Your task to perform on an android device: Open Android settings Image 0: 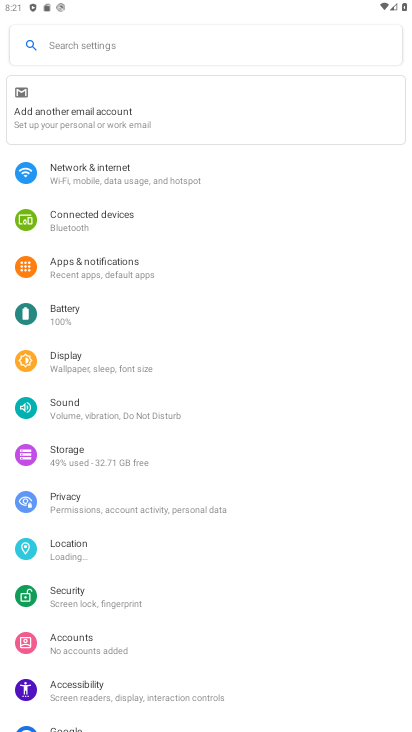
Step 0: press home button
Your task to perform on an android device: Open Android settings Image 1: 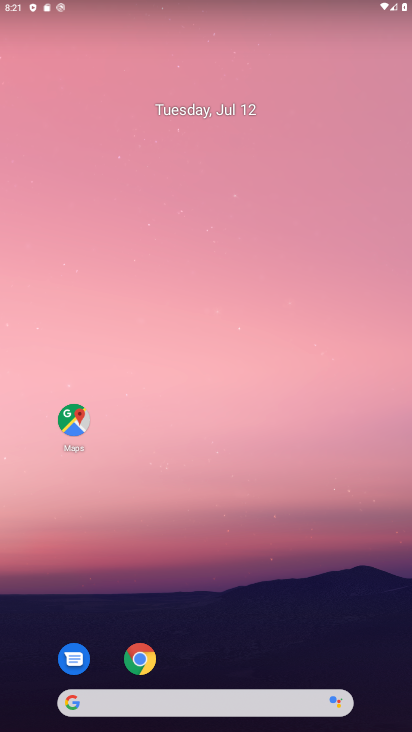
Step 1: drag from (215, 619) to (123, 78)
Your task to perform on an android device: Open Android settings Image 2: 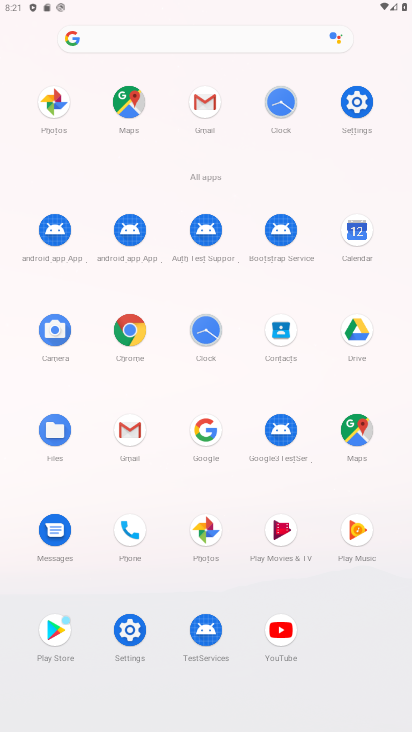
Step 2: click (360, 100)
Your task to perform on an android device: Open Android settings Image 3: 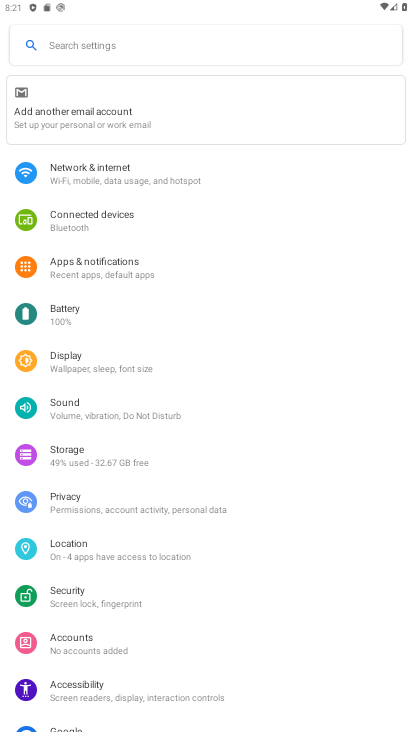
Step 3: task complete